Your task to perform on an android device: Open location settings Image 0: 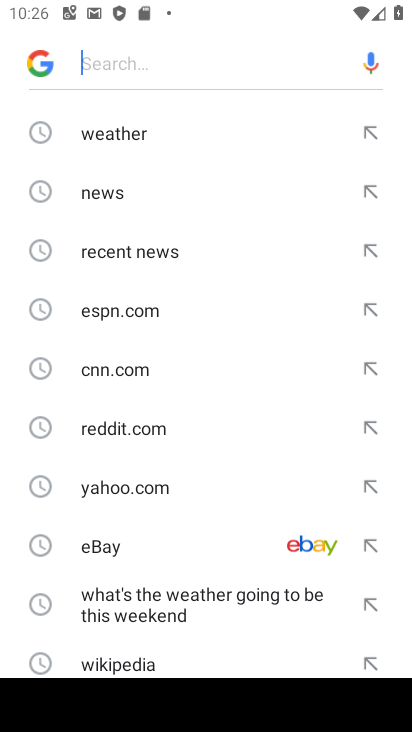
Step 0: press back button
Your task to perform on an android device: Open location settings Image 1: 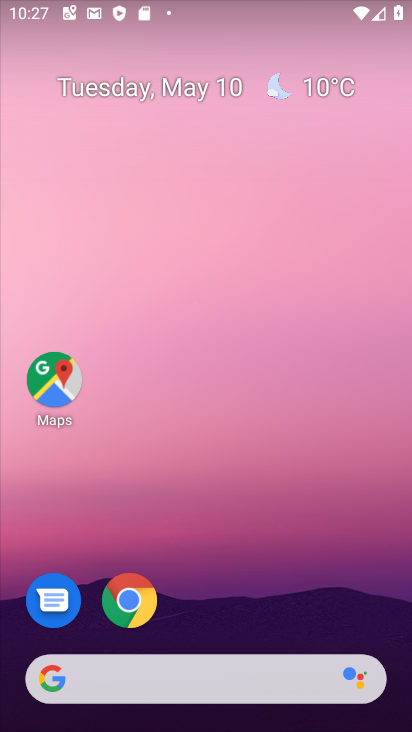
Step 1: drag from (223, 552) to (192, 41)
Your task to perform on an android device: Open location settings Image 2: 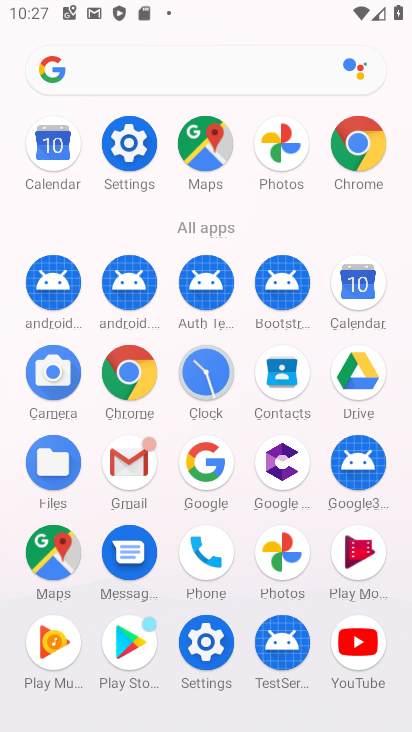
Step 2: drag from (24, 509) to (10, 179)
Your task to perform on an android device: Open location settings Image 3: 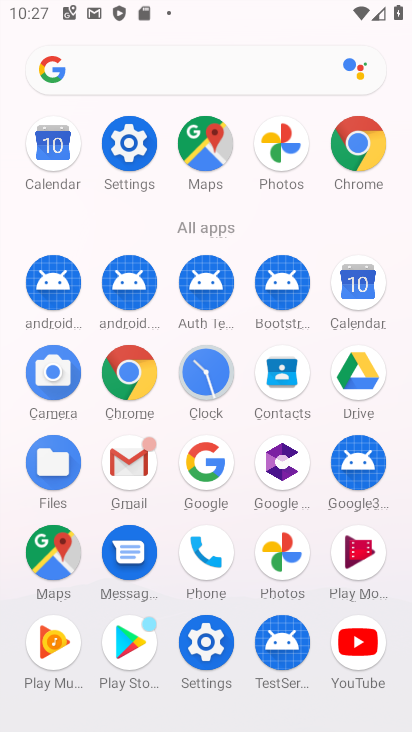
Step 3: click (205, 640)
Your task to perform on an android device: Open location settings Image 4: 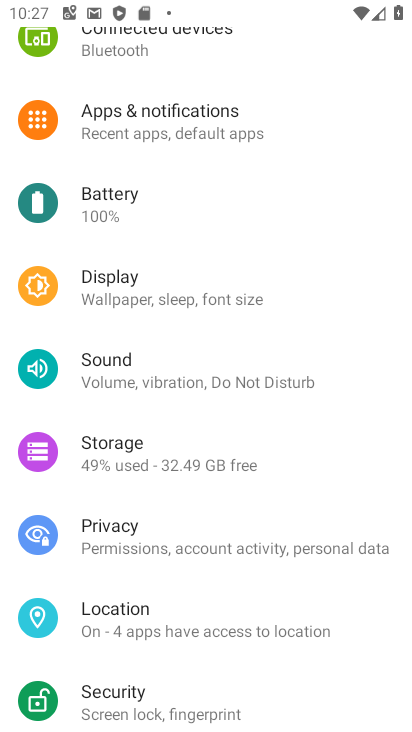
Step 4: click (134, 633)
Your task to perform on an android device: Open location settings Image 5: 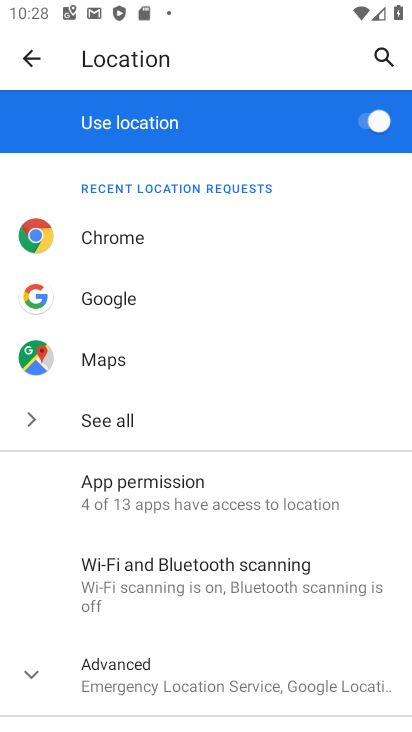
Step 5: task complete